Your task to perform on an android device: Open Google Image 0: 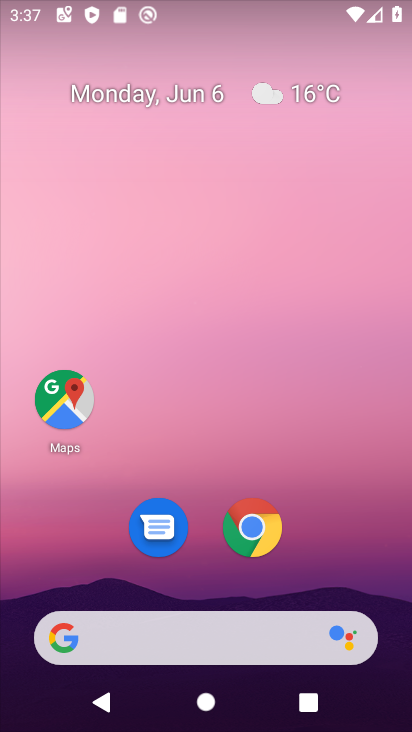
Step 0: drag from (115, 567) to (212, 98)
Your task to perform on an android device: Open Google Image 1: 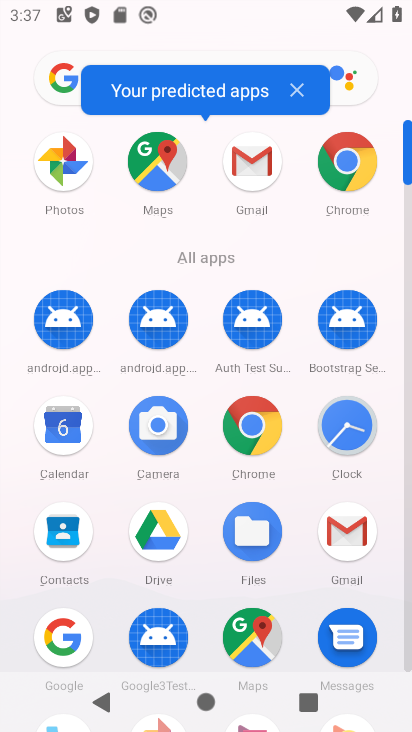
Step 1: click (66, 637)
Your task to perform on an android device: Open Google Image 2: 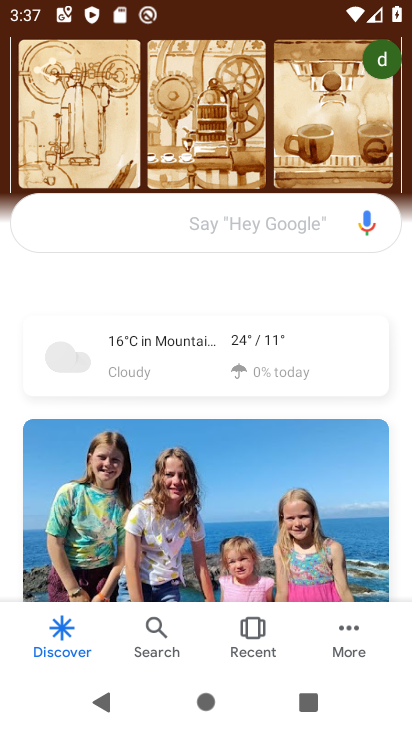
Step 2: task complete